Your task to perform on an android device: Open Chrome and go to settings Image 0: 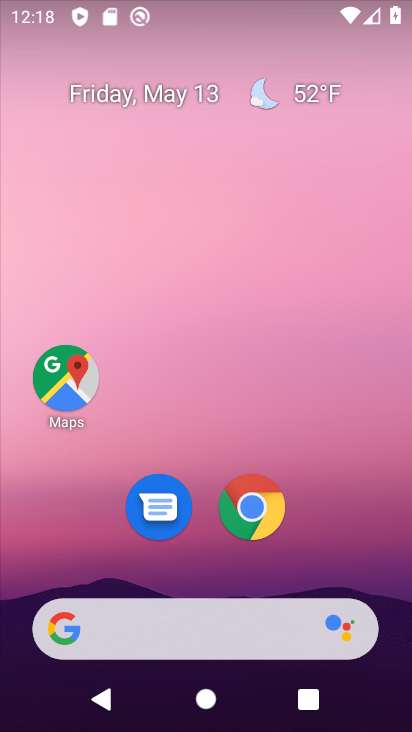
Step 0: drag from (231, 550) to (246, 209)
Your task to perform on an android device: Open Chrome and go to settings Image 1: 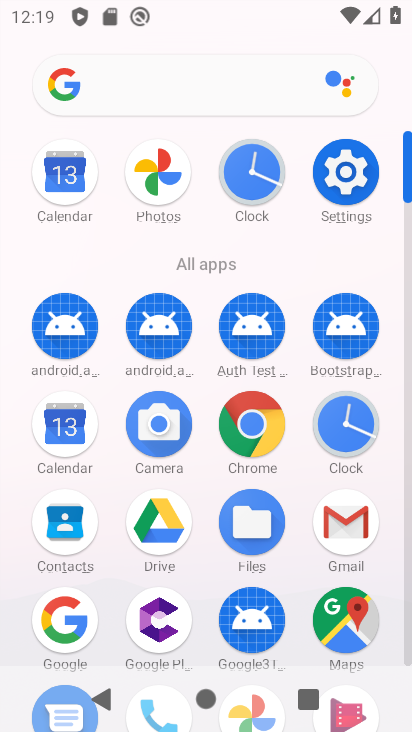
Step 1: click (246, 418)
Your task to perform on an android device: Open Chrome and go to settings Image 2: 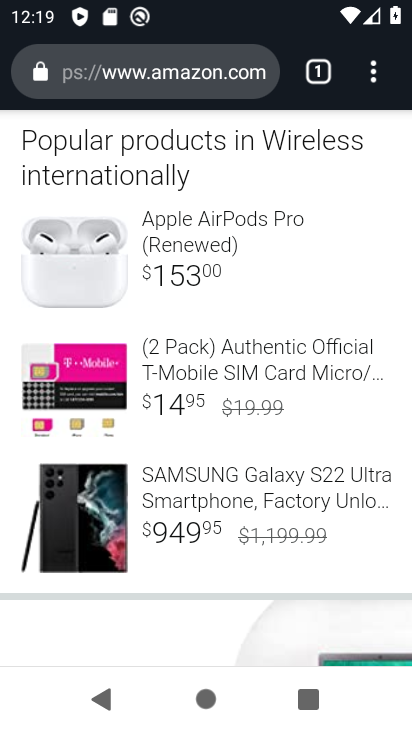
Step 2: click (373, 71)
Your task to perform on an android device: Open Chrome and go to settings Image 3: 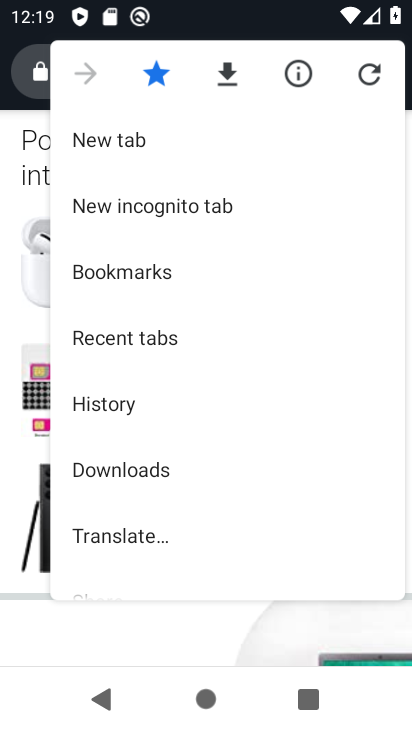
Step 3: drag from (173, 531) to (187, 201)
Your task to perform on an android device: Open Chrome and go to settings Image 4: 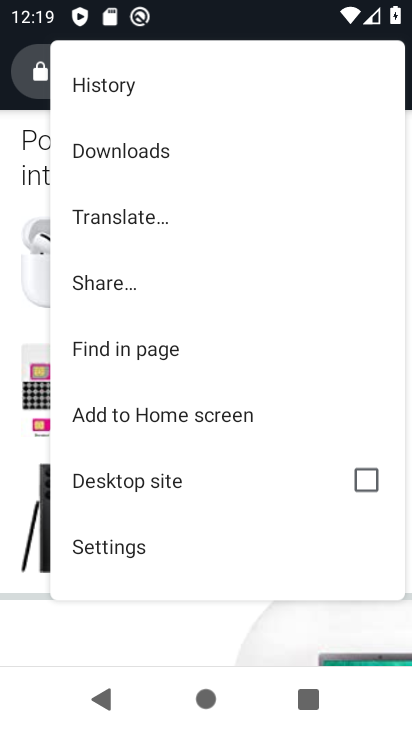
Step 4: click (115, 552)
Your task to perform on an android device: Open Chrome and go to settings Image 5: 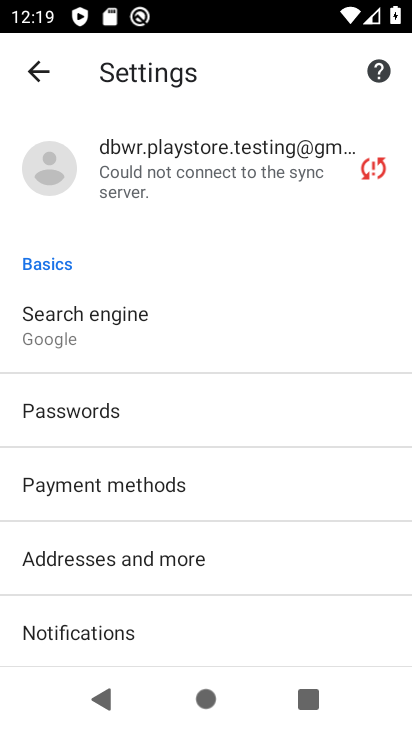
Step 5: task complete